Your task to perform on an android device: open the mobile data screen to see how much data has been used Image 0: 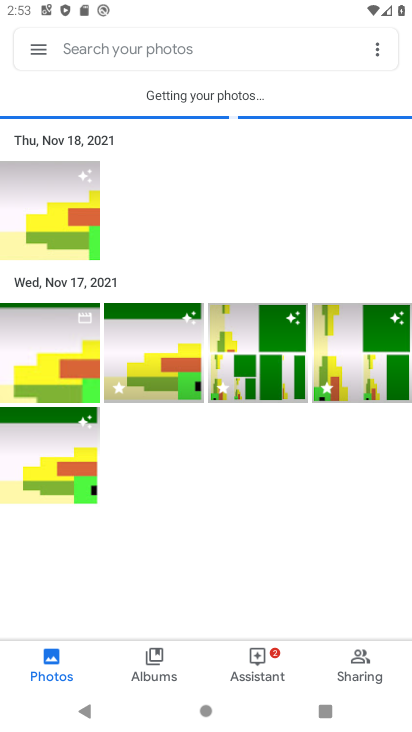
Step 0: press home button
Your task to perform on an android device: open the mobile data screen to see how much data has been used Image 1: 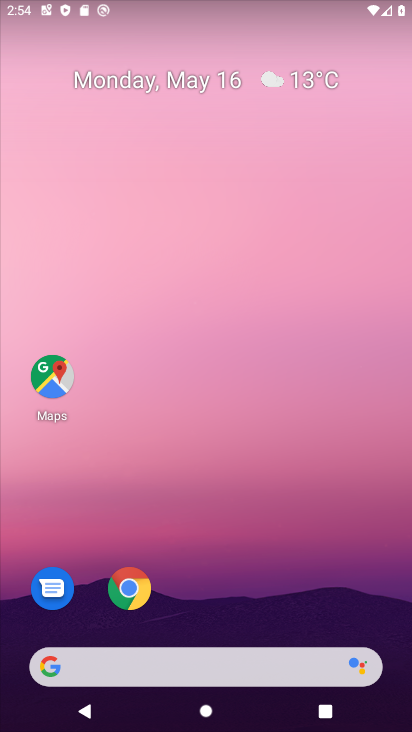
Step 1: drag from (260, 657) to (350, 99)
Your task to perform on an android device: open the mobile data screen to see how much data has been used Image 2: 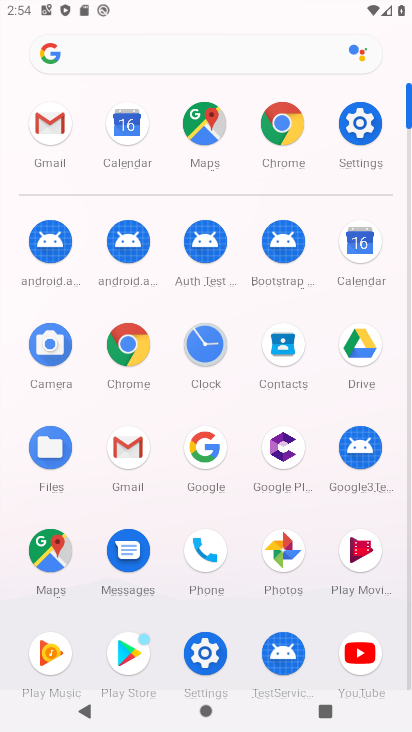
Step 2: click (353, 126)
Your task to perform on an android device: open the mobile data screen to see how much data has been used Image 3: 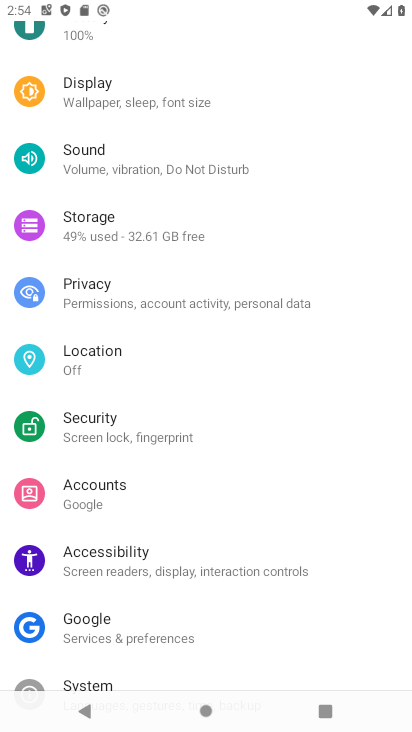
Step 3: drag from (160, 294) to (149, 731)
Your task to perform on an android device: open the mobile data screen to see how much data has been used Image 4: 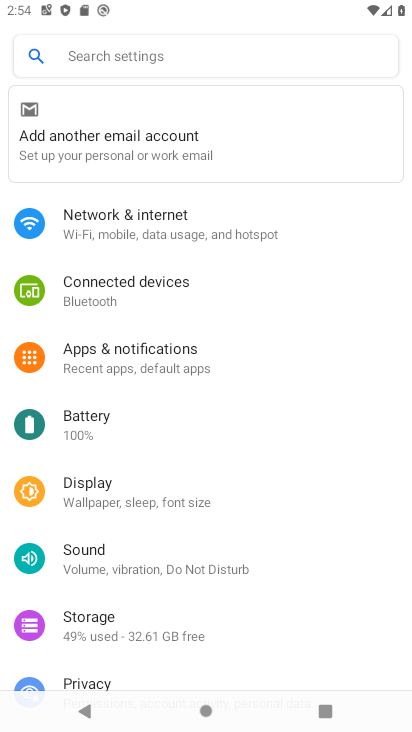
Step 4: click (142, 221)
Your task to perform on an android device: open the mobile data screen to see how much data has been used Image 5: 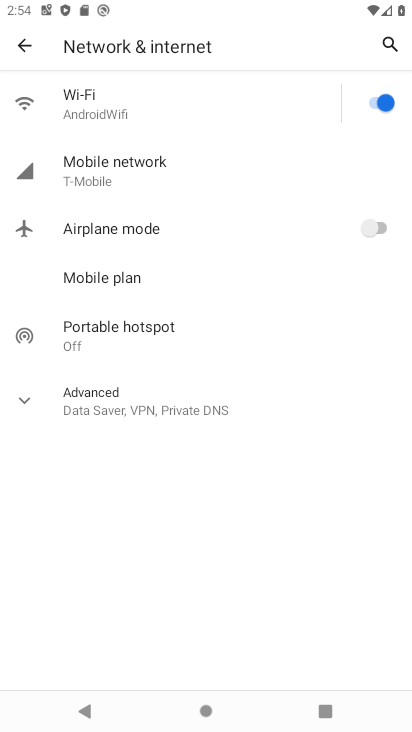
Step 5: click (115, 185)
Your task to perform on an android device: open the mobile data screen to see how much data has been used Image 6: 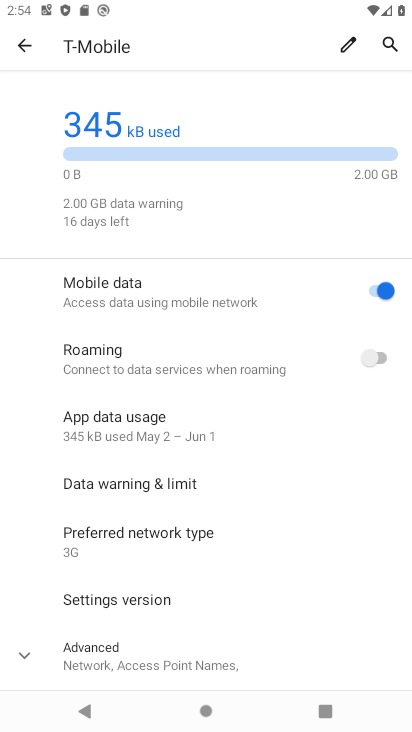
Step 6: task complete